Your task to perform on an android device: Go to notification settings Image 0: 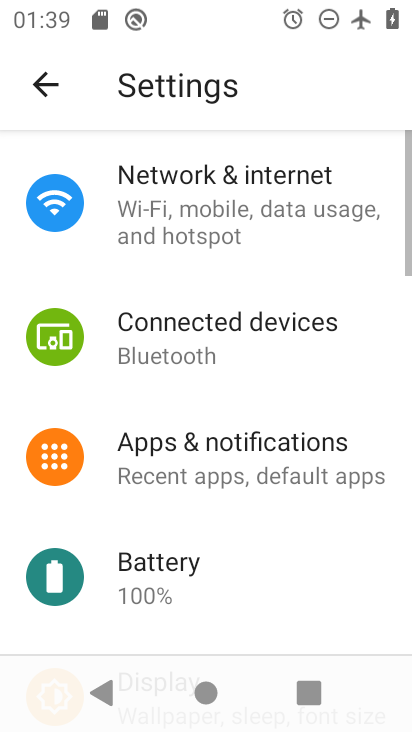
Step 0: press home button
Your task to perform on an android device: Go to notification settings Image 1: 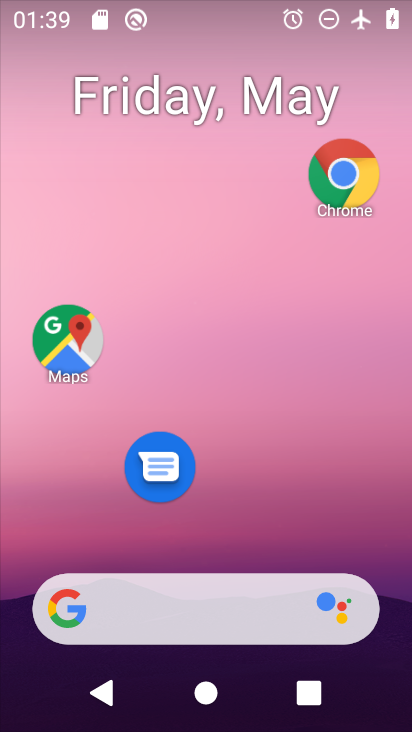
Step 1: drag from (278, 549) to (244, 243)
Your task to perform on an android device: Go to notification settings Image 2: 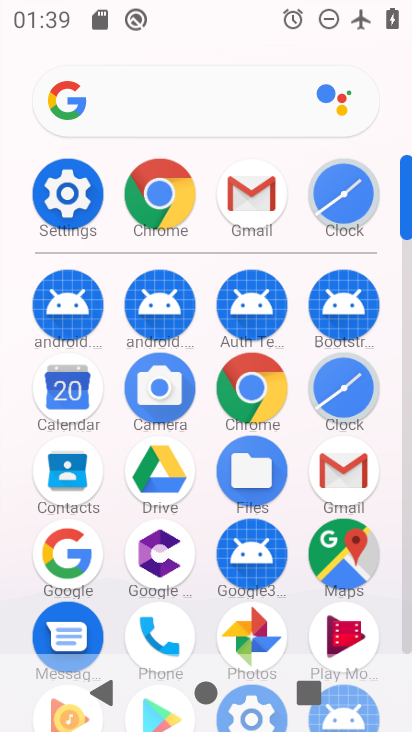
Step 2: click (78, 189)
Your task to perform on an android device: Go to notification settings Image 3: 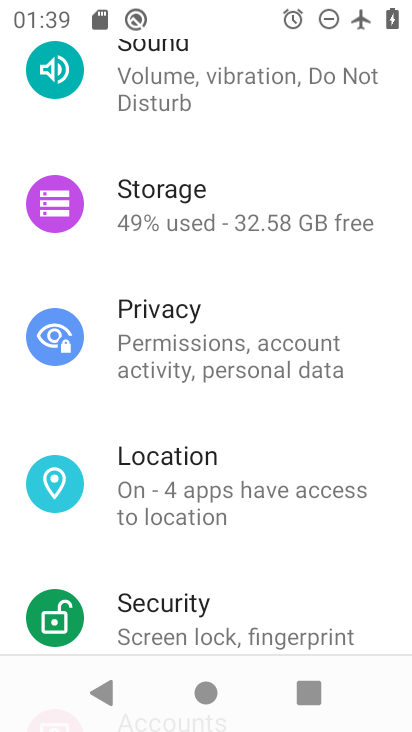
Step 3: drag from (202, 157) to (209, 510)
Your task to perform on an android device: Go to notification settings Image 4: 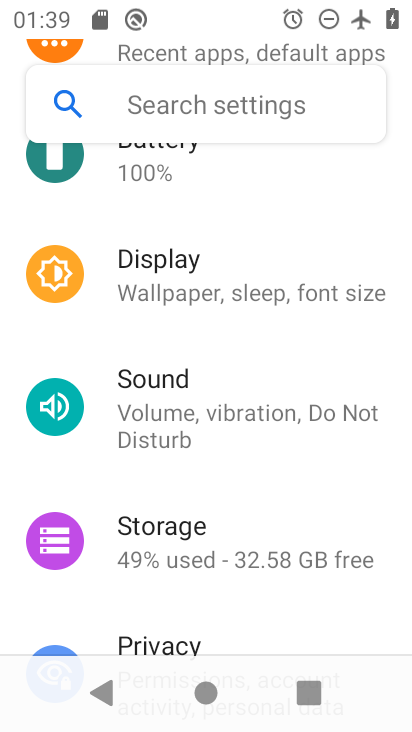
Step 4: drag from (229, 265) to (194, 582)
Your task to perform on an android device: Go to notification settings Image 5: 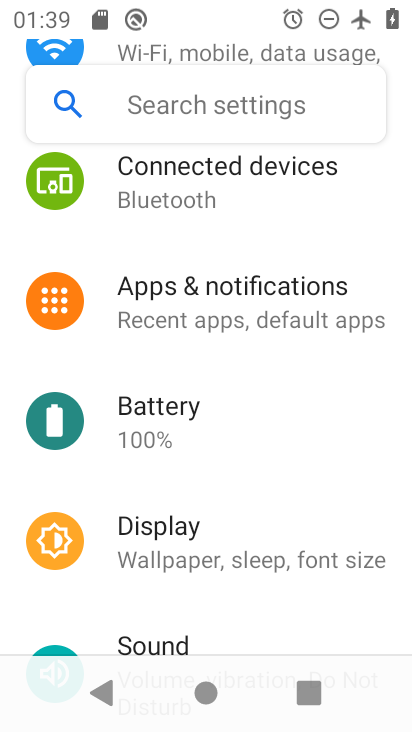
Step 5: click (219, 295)
Your task to perform on an android device: Go to notification settings Image 6: 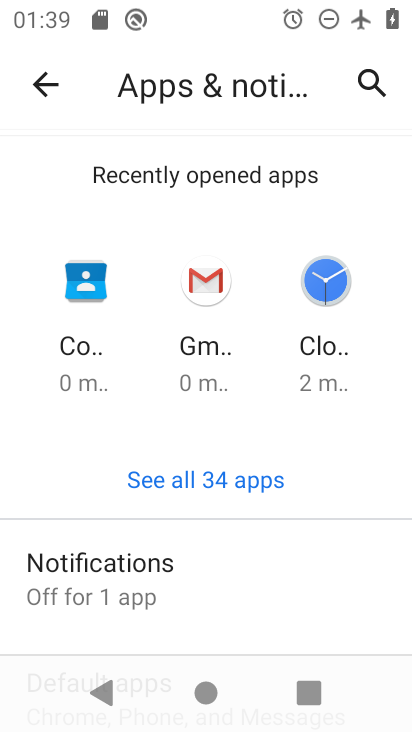
Step 6: click (185, 581)
Your task to perform on an android device: Go to notification settings Image 7: 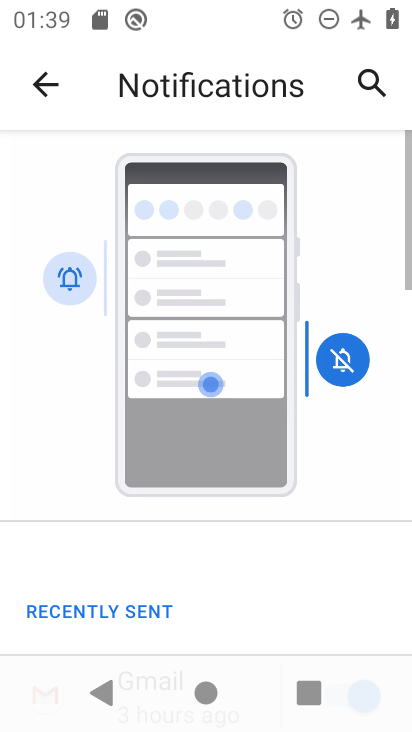
Step 7: task complete